Your task to perform on an android device: Open Amazon Image 0: 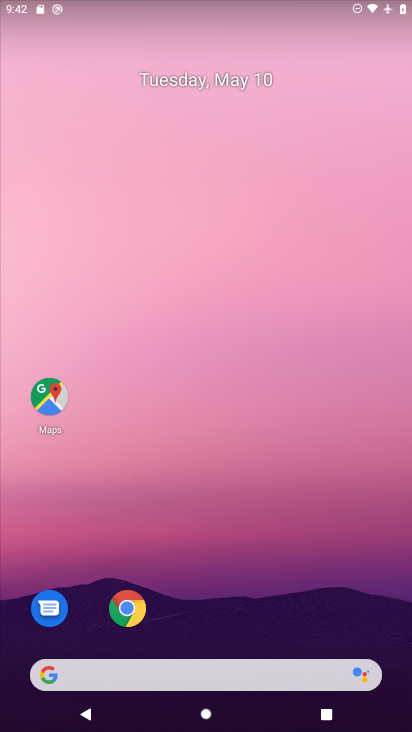
Step 0: drag from (241, 613) to (246, 270)
Your task to perform on an android device: Open Amazon Image 1: 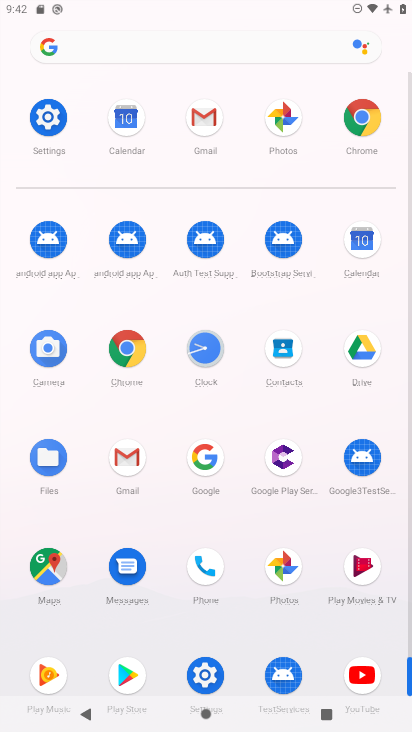
Step 1: click (131, 341)
Your task to perform on an android device: Open Amazon Image 2: 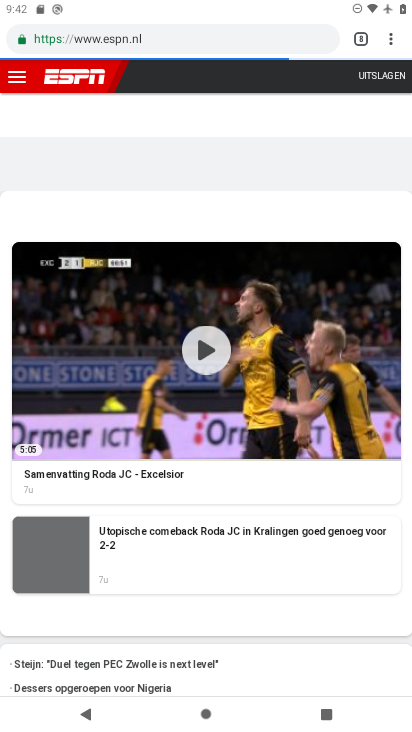
Step 2: click (376, 36)
Your task to perform on an android device: Open Amazon Image 3: 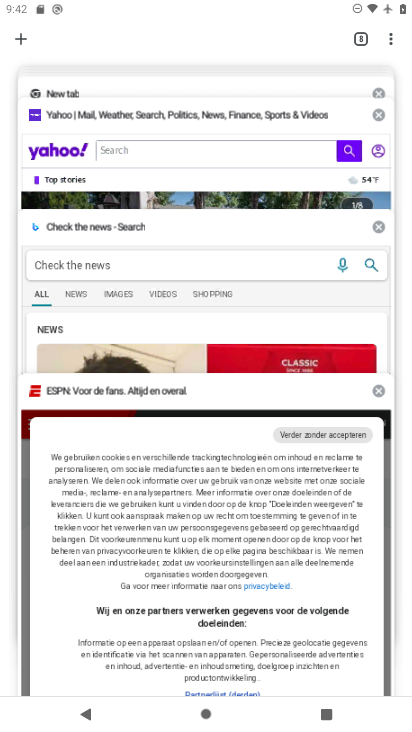
Step 3: click (27, 37)
Your task to perform on an android device: Open Amazon Image 4: 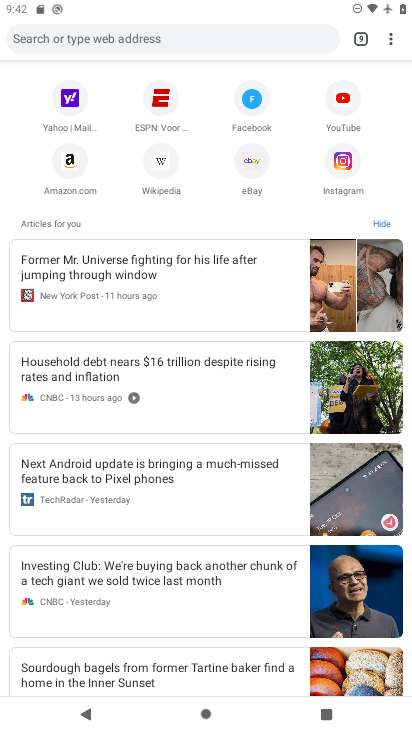
Step 4: click (73, 157)
Your task to perform on an android device: Open Amazon Image 5: 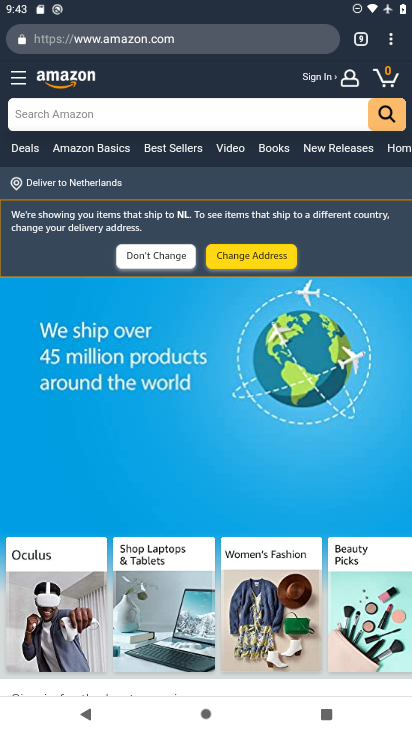
Step 5: task complete